Your task to perform on an android device: install app "Spotify" Image 0: 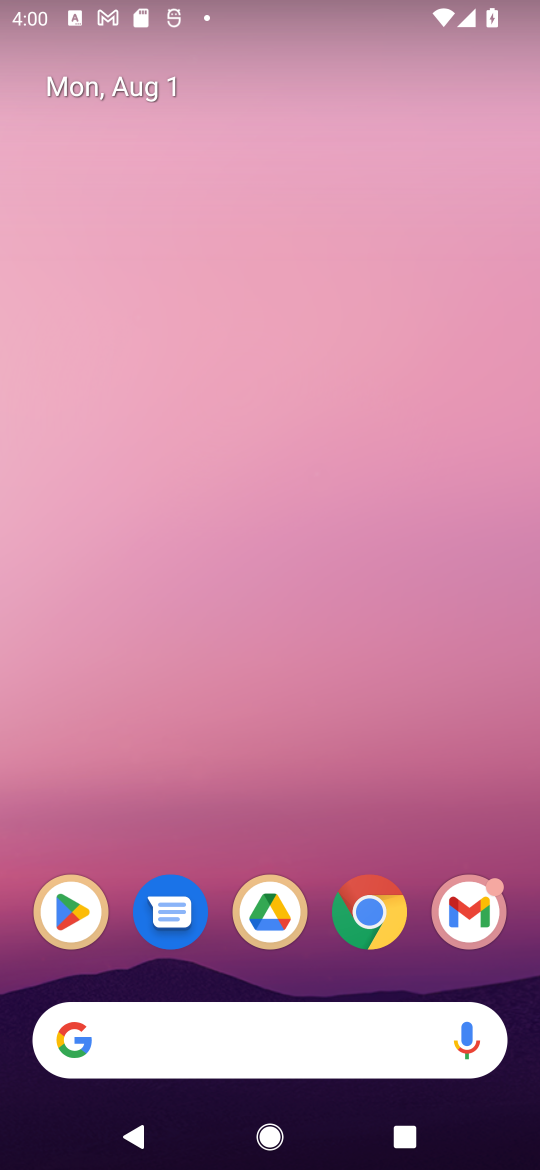
Step 0: click (91, 928)
Your task to perform on an android device: install app "Spotify" Image 1: 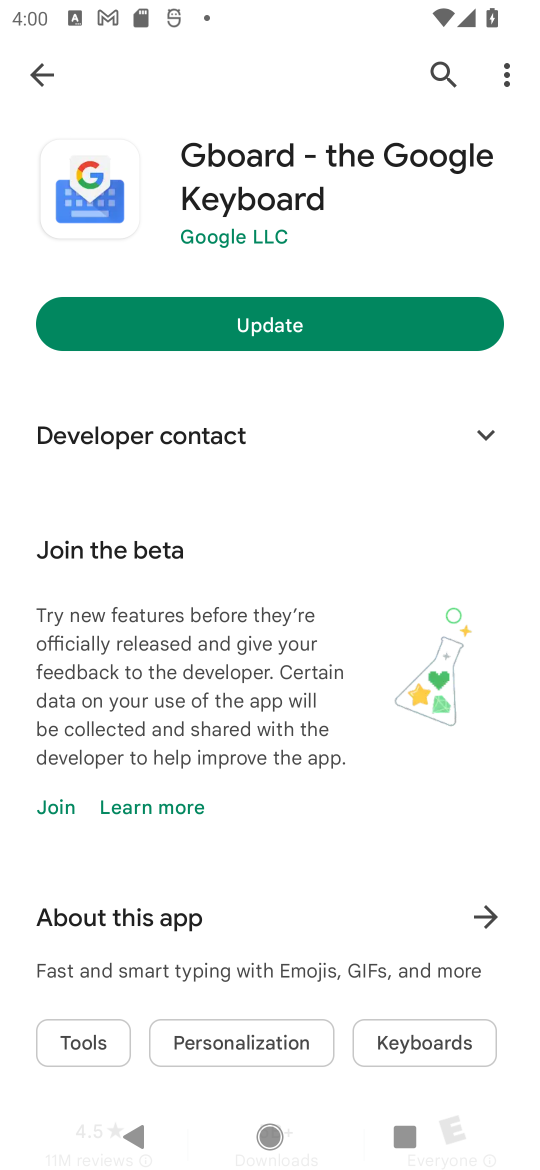
Step 1: click (437, 79)
Your task to perform on an android device: install app "Spotify" Image 2: 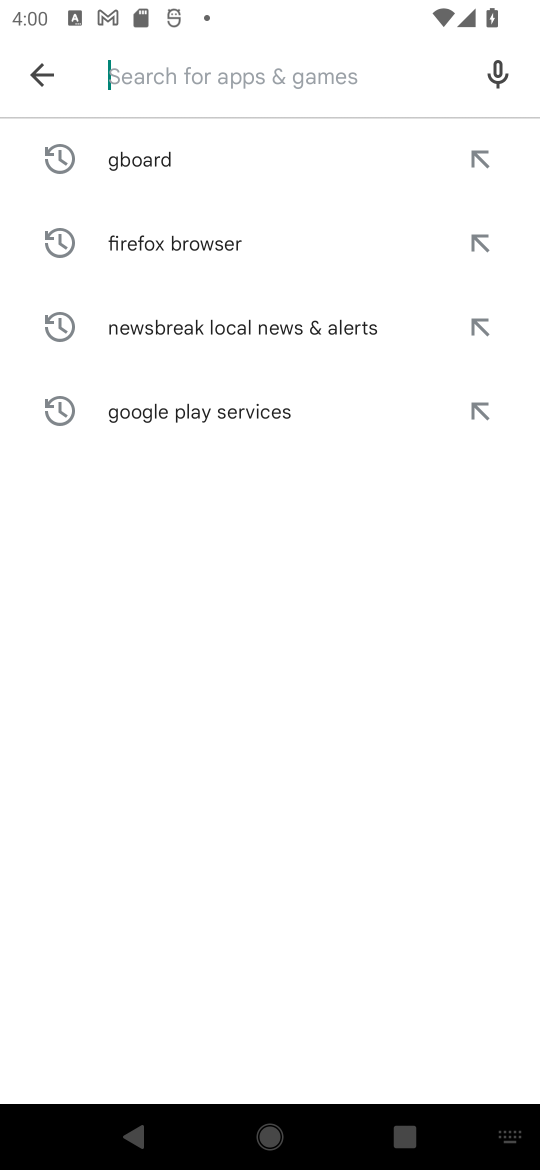
Step 2: click (414, 82)
Your task to perform on an android device: install app "Spotify" Image 3: 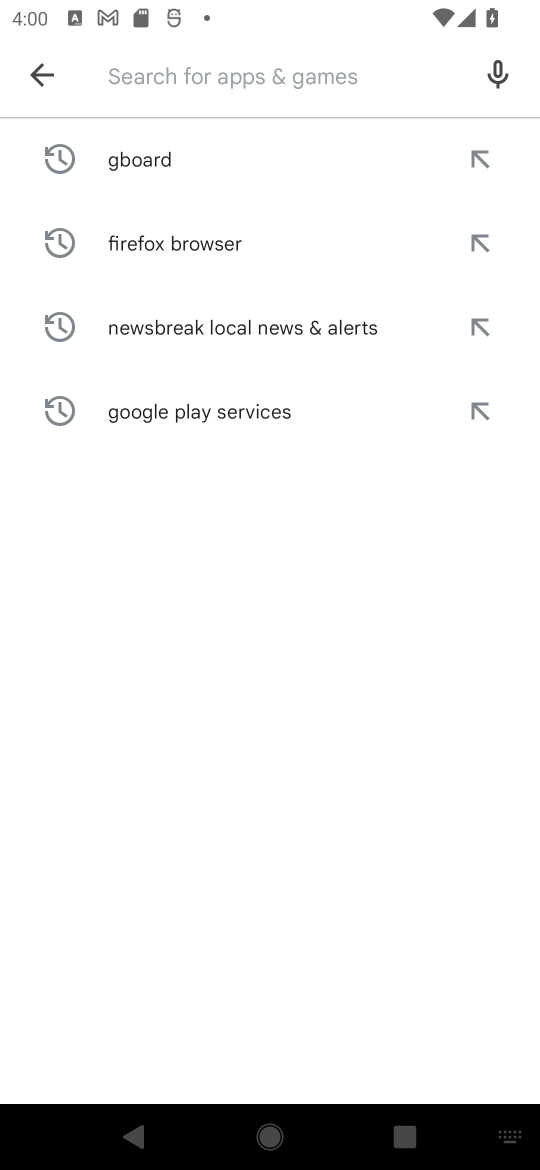
Step 3: type "Spotify"
Your task to perform on an android device: install app "Spotify" Image 4: 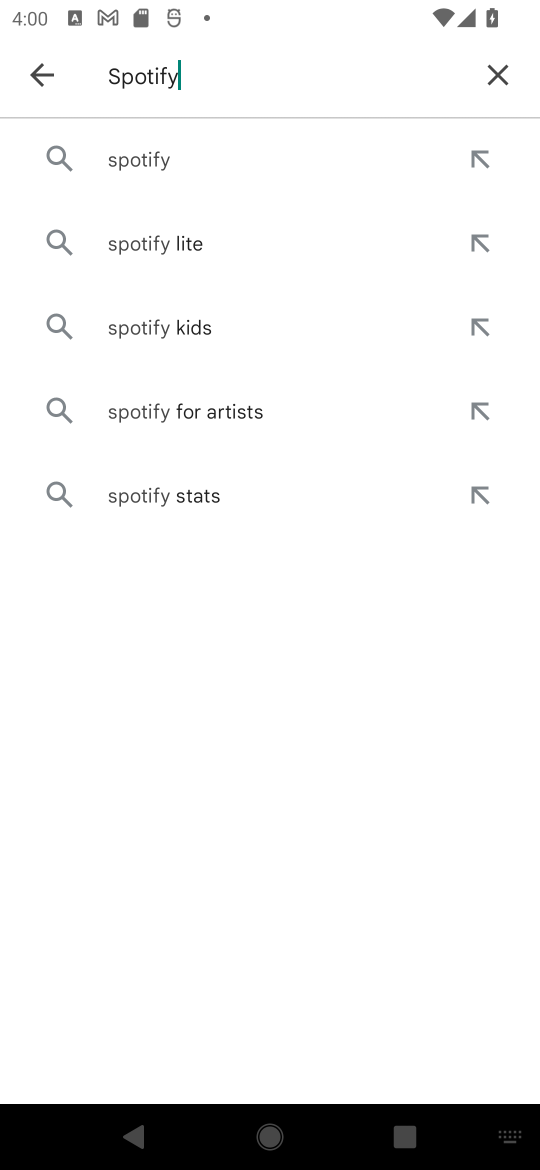
Step 4: click (100, 168)
Your task to perform on an android device: install app "Spotify" Image 5: 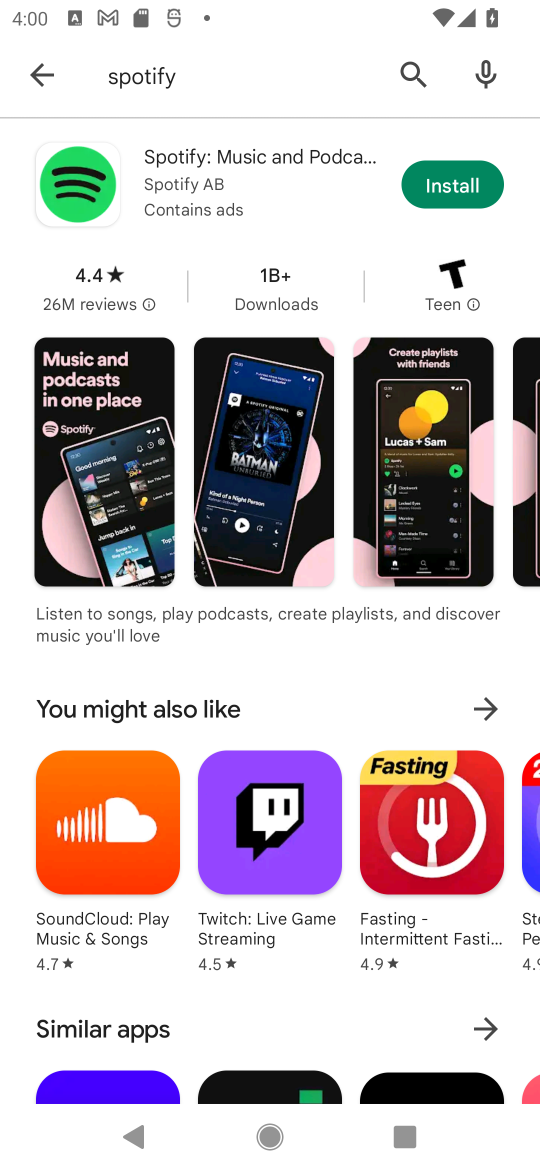
Step 5: click (427, 181)
Your task to perform on an android device: install app "Spotify" Image 6: 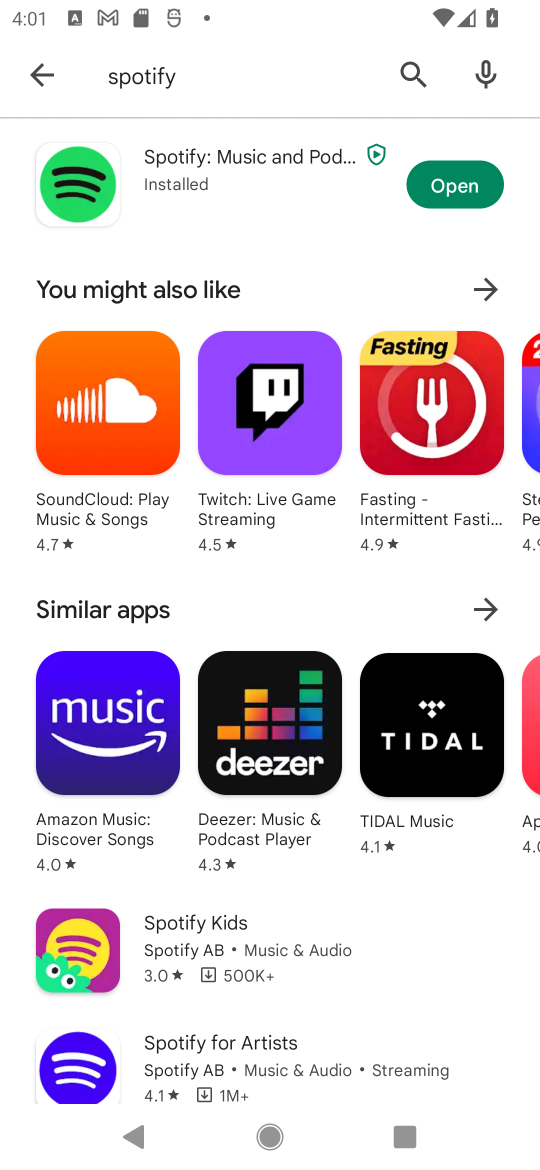
Step 6: task complete